Your task to perform on an android device: open app "Expedia: Hotels, Flights & Car" (install if not already installed) and go to login screen Image 0: 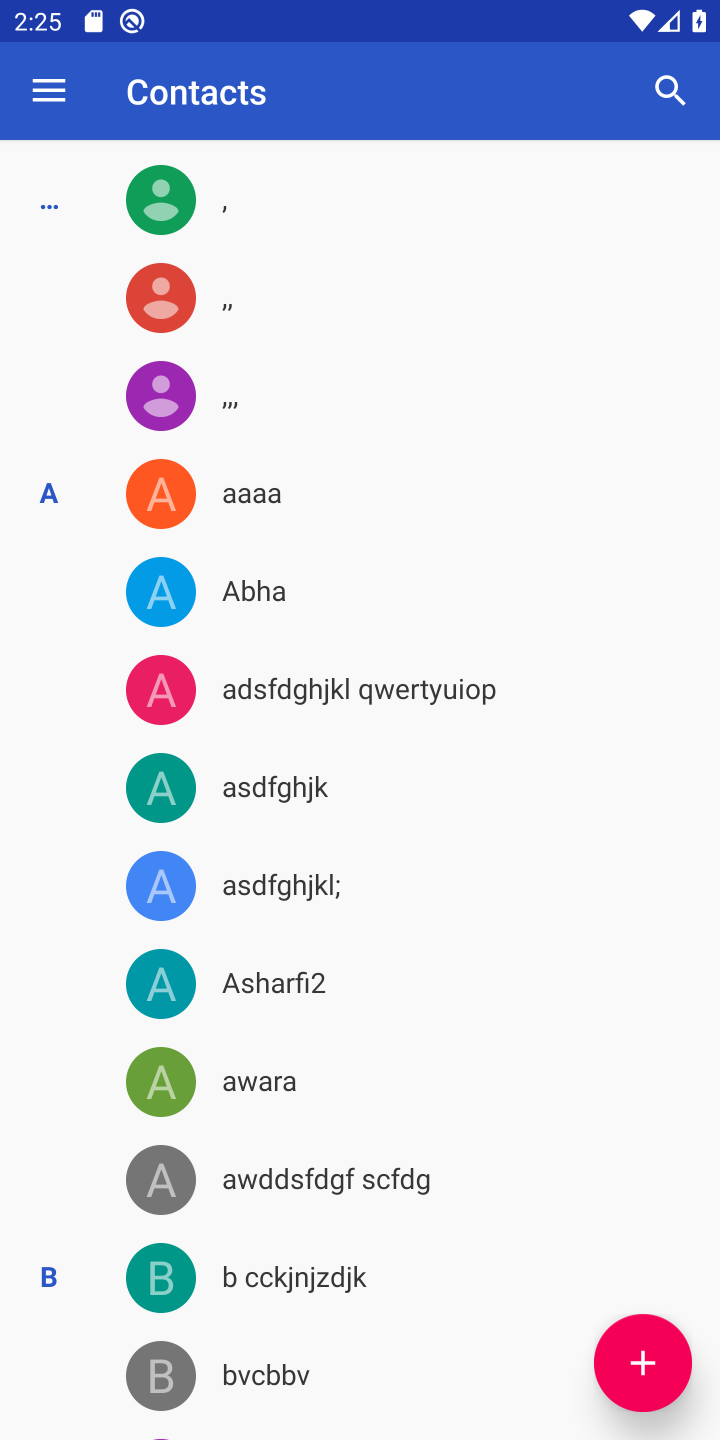
Step 0: press home button
Your task to perform on an android device: open app "Expedia: Hotels, Flights & Car" (install if not already installed) and go to login screen Image 1: 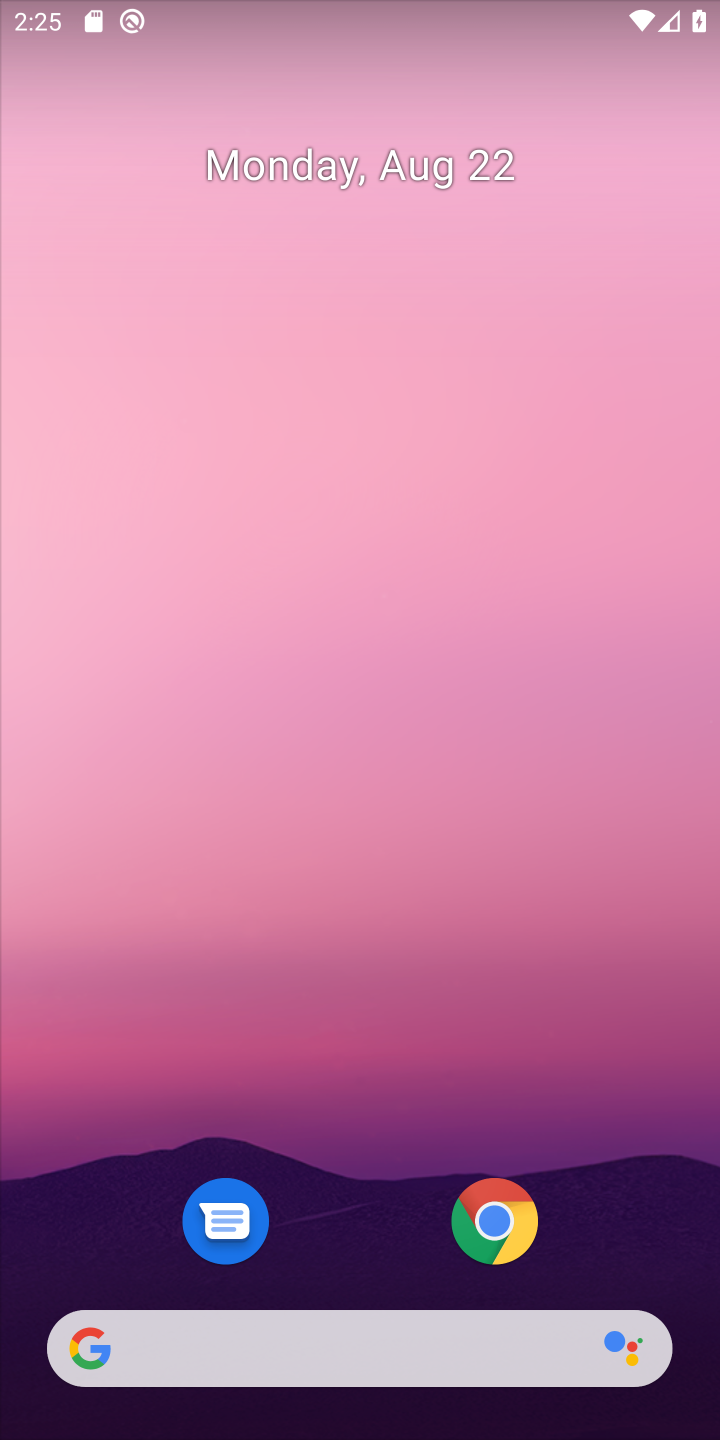
Step 1: drag from (329, 976) to (290, 168)
Your task to perform on an android device: open app "Expedia: Hotels, Flights & Car" (install if not already installed) and go to login screen Image 2: 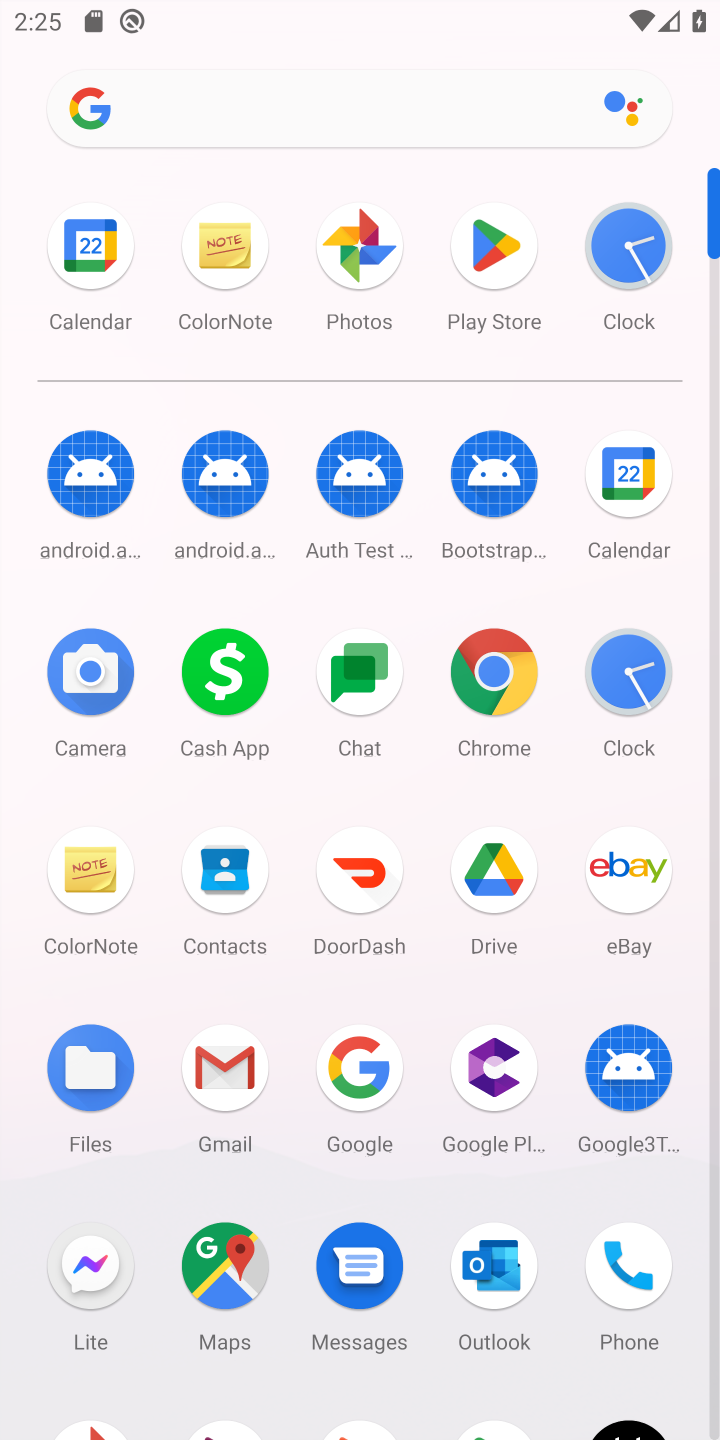
Step 2: click (493, 230)
Your task to perform on an android device: open app "Expedia: Hotels, Flights & Car" (install if not already installed) and go to login screen Image 3: 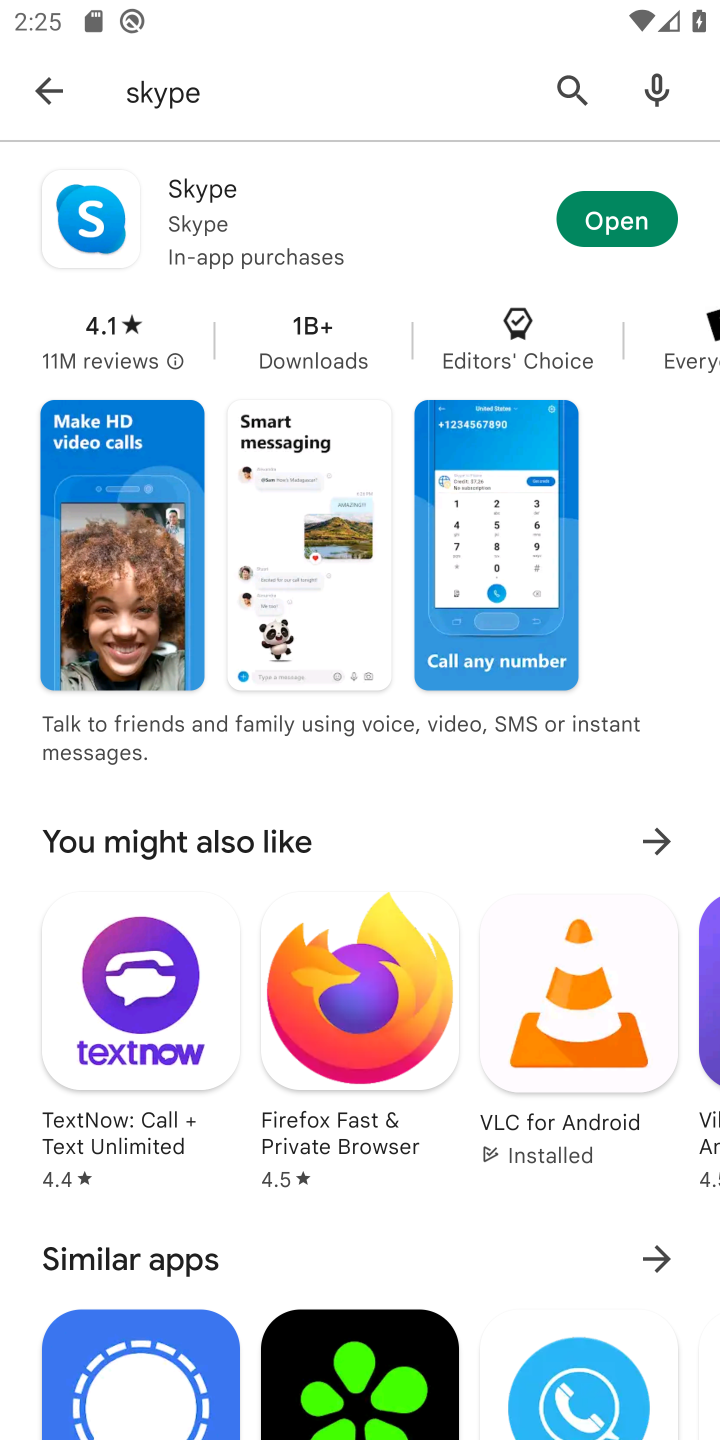
Step 3: click (555, 96)
Your task to perform on an android device: open app "Expedia: Hotels, Flights & Car" (install if not already installed) and go to login screen Image 4: 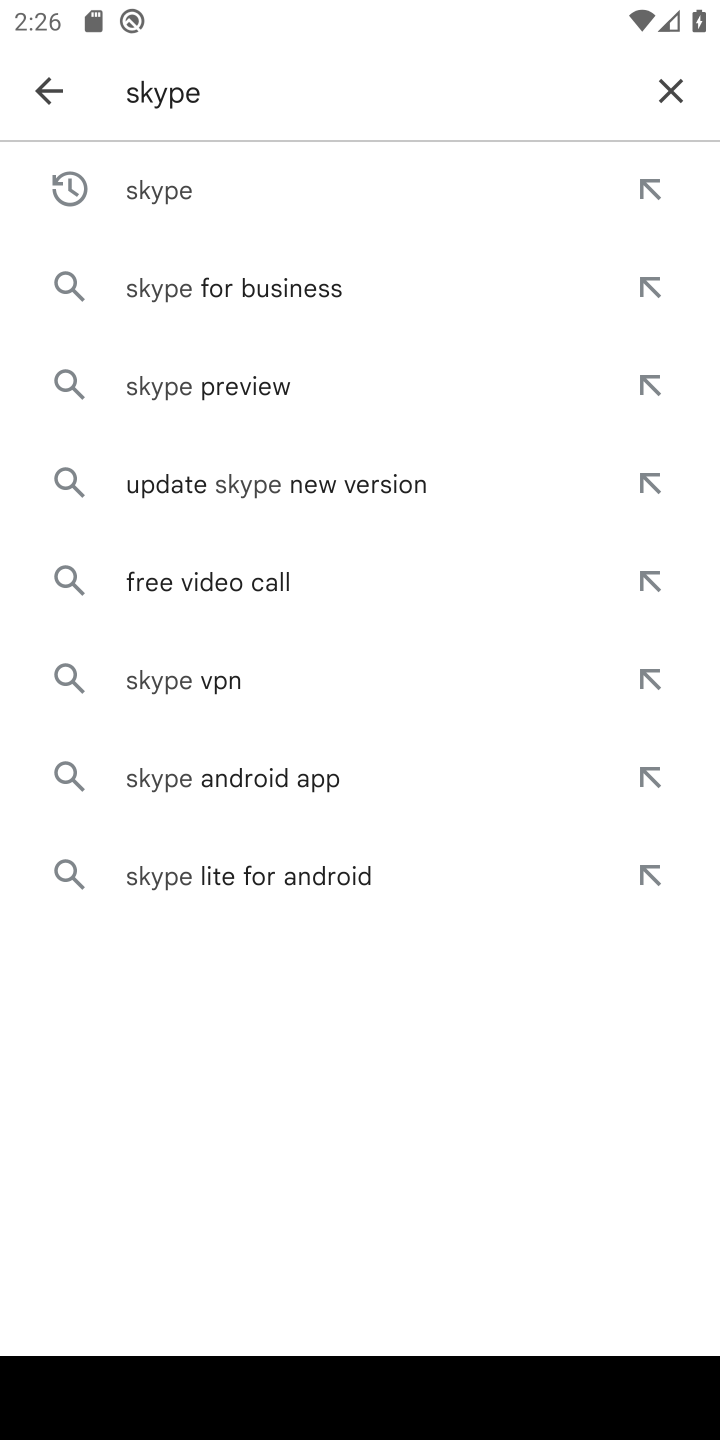
Step 4: click (666, 96)
Your task to perform on an android device: open app "Expedia: Hotels, Flights & Car" (install if not already installed) and go to login screen Image 5: 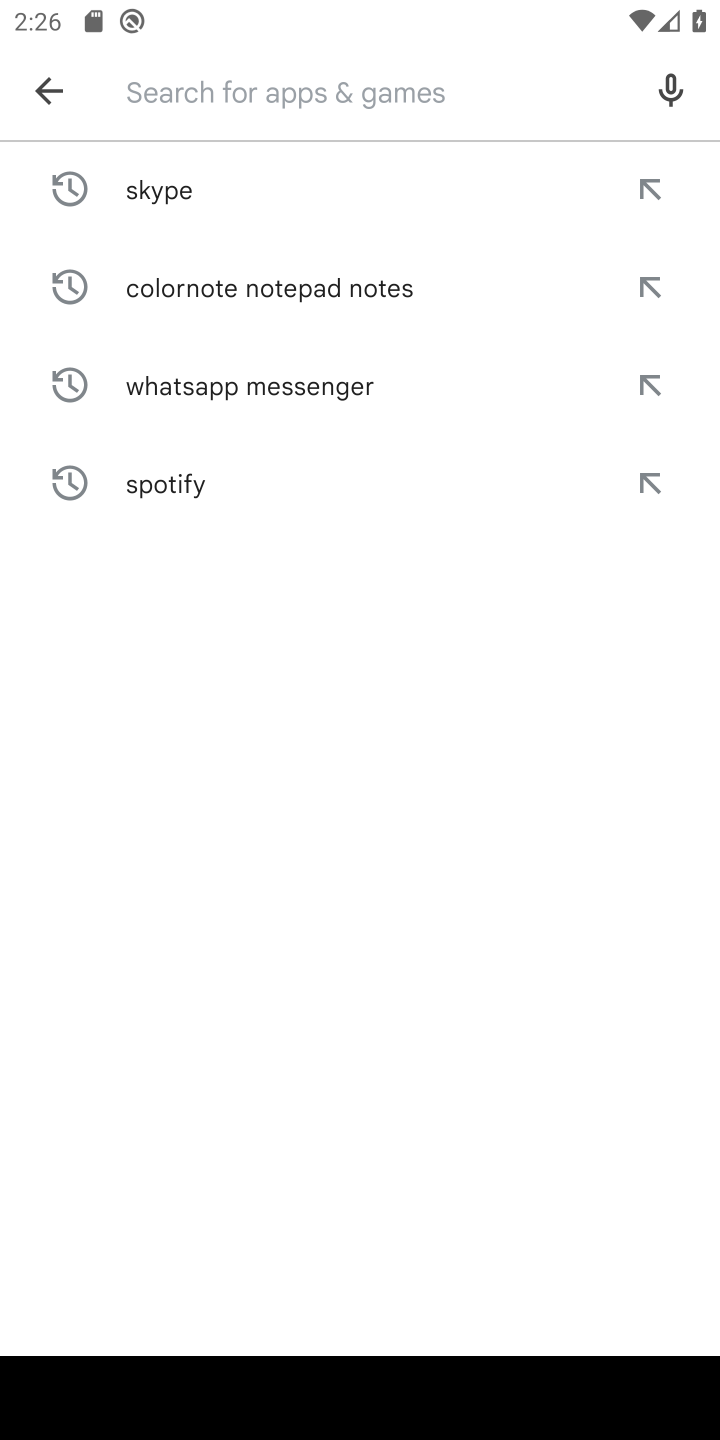
Step 5: type "Expedia: Hotels, Flights & Car"
Your task to perform on an android device: open app "Expedia: Hotels, Flights & Car" (install if not already installed) and go to login screen Image 6: 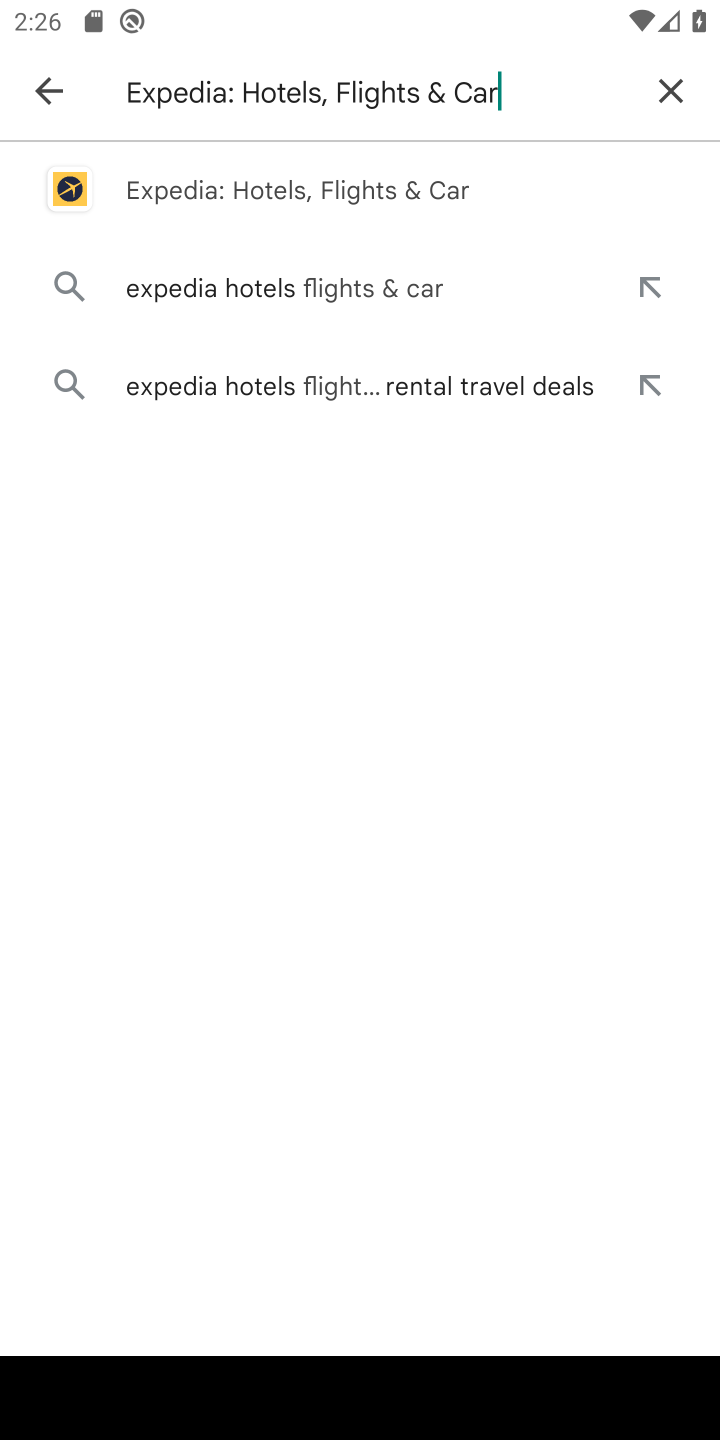
Step 6: click (236, 191)
Your task to perform on an android device: open app "Expedia: Hotels, Flights & Car" (install if not already installed) and go to login screen Image 7: 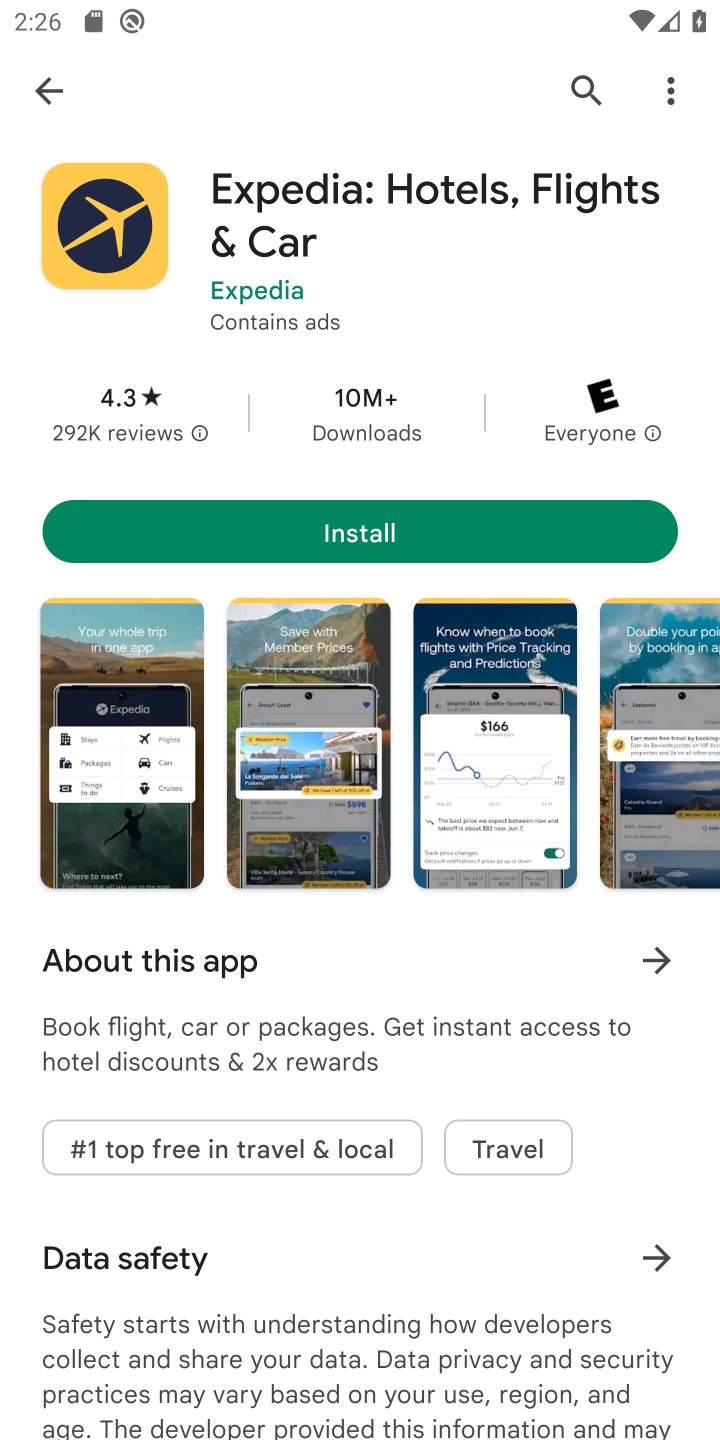
Step 7: click (411, 523)
Your task to perform on an android device: open app "Expedia: Hotels, Flights & Car" (install if not already installed) and go to login screen Image 8: 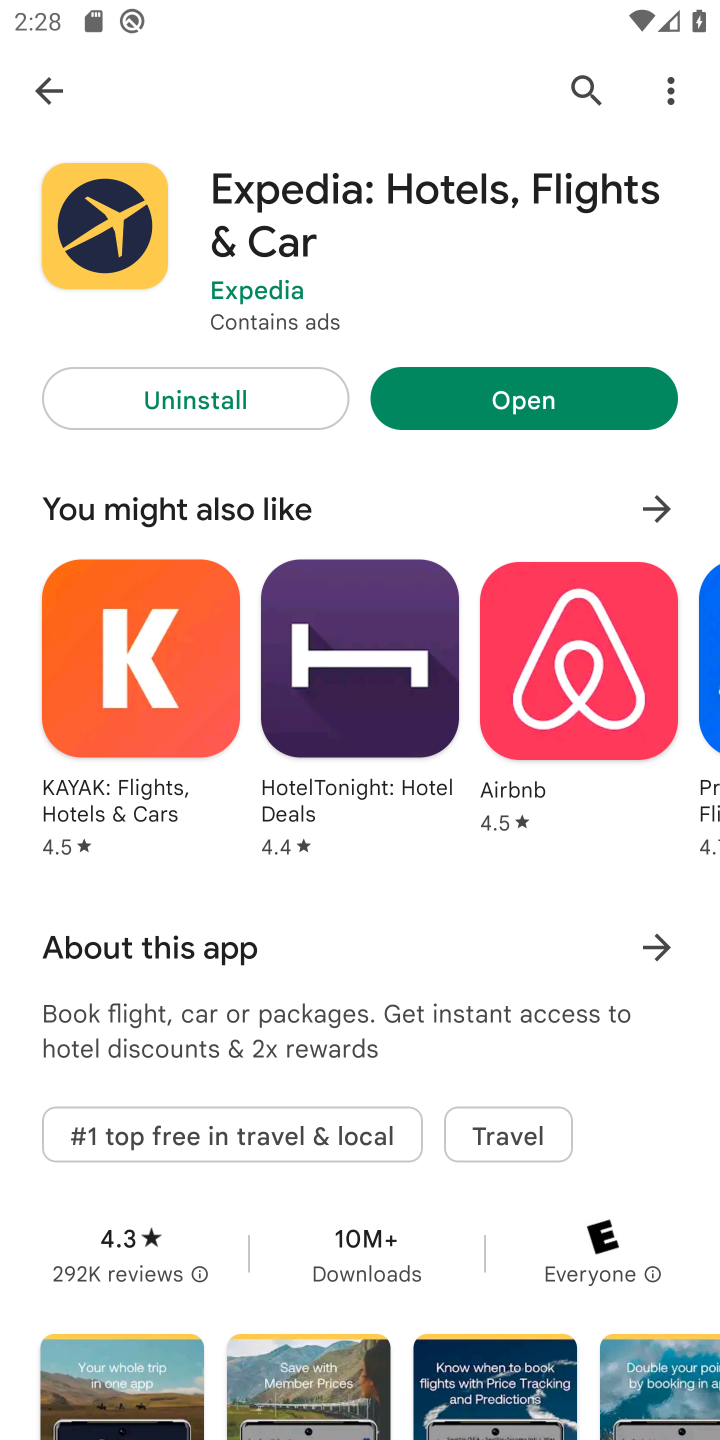
Step 8: click (501, 403)
Your task to perform on an android device: open app "Expedia: Hotels, Flights & Car" (install if not already installed) and go to login screen Image 9: 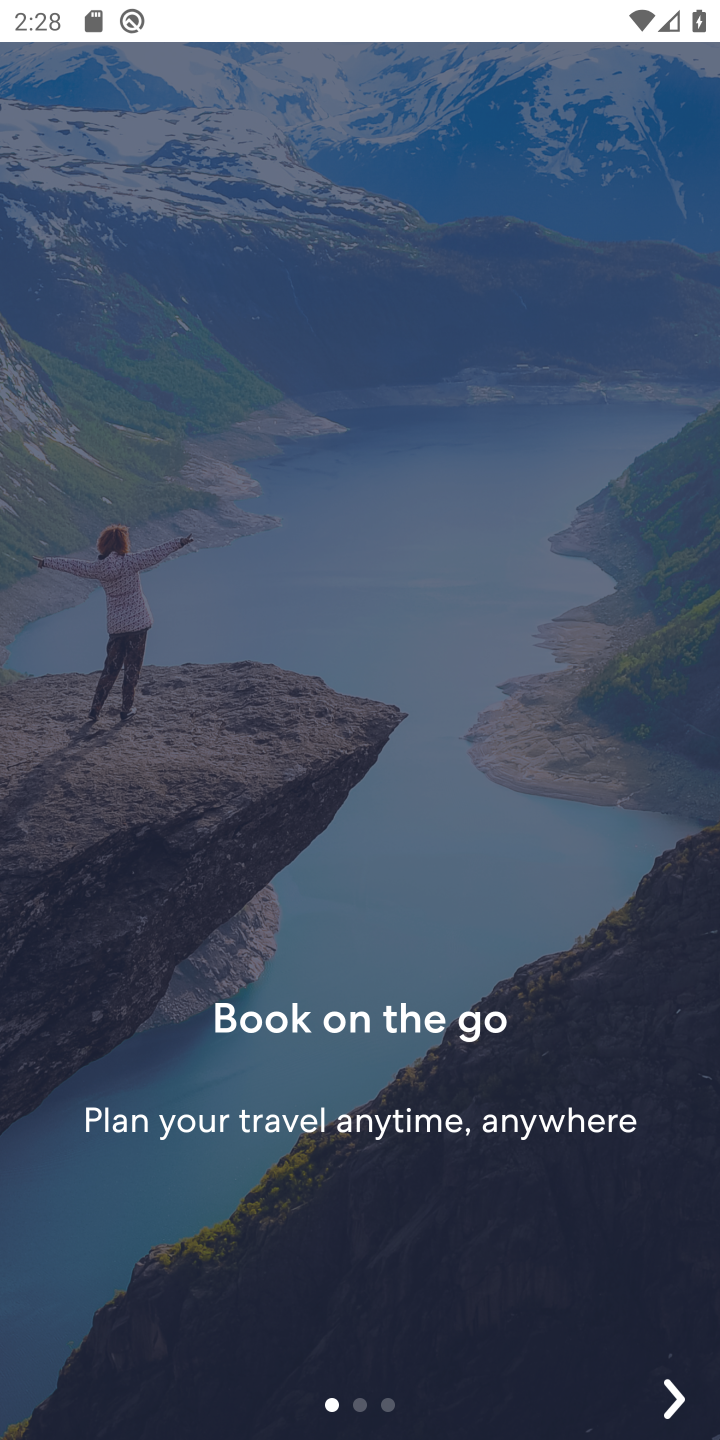
Step 9: task complete